Your task to perform on an android device: Search for sushi restaurants on Maps Image 0: 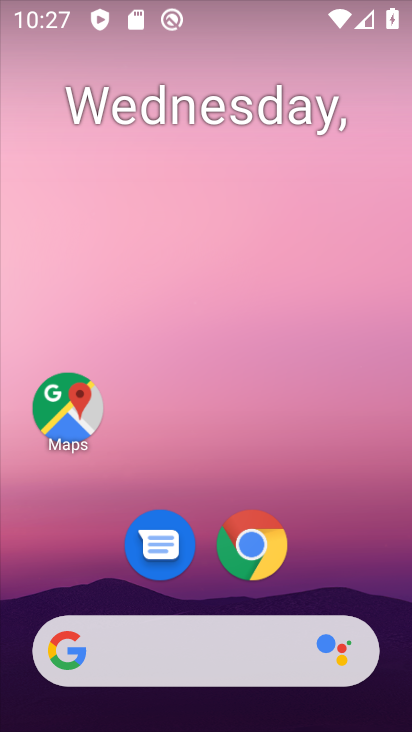
Step 0: click (56, 416)
Your task to perform on an android device: Search for sushi restaurants on Maps Image 1: 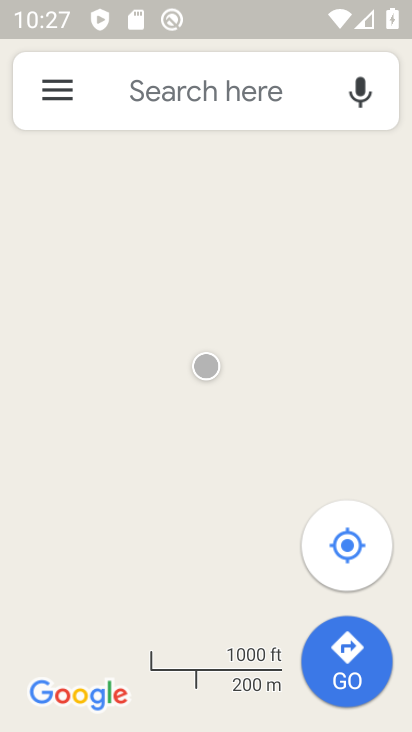
Step 1: click (247, 102)
Your task to perform on an android device: Search for sushi restaurants on Maps Image 2: 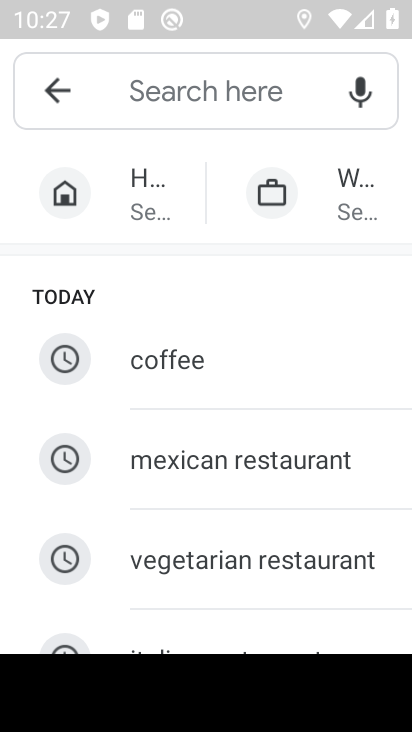
Step 2: type "sushi restaurants"
Your task to perform on an android device: Search for sushi restaurants on Maps Image 3: 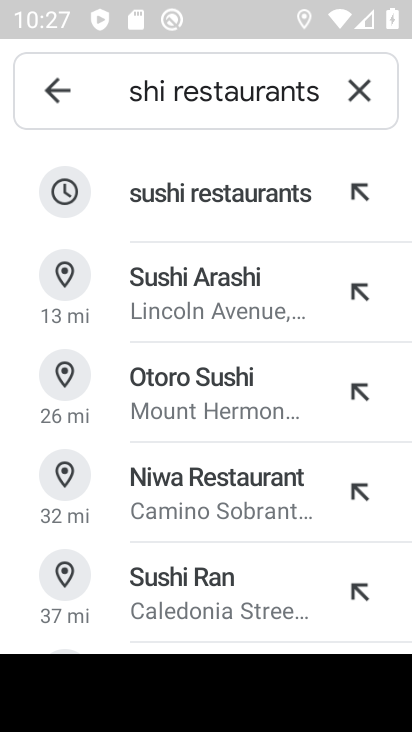
Step 3: click (204, 184)
Your task to perform on an android device: Search for sushi restaurants on Maps Image 4: 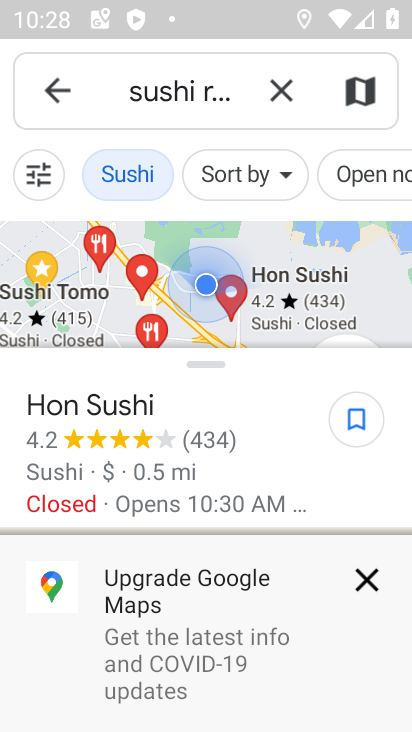
Step 4: task complete